Your task to perform on an android device: Search for a custom made wallet on Etsy Image 0: 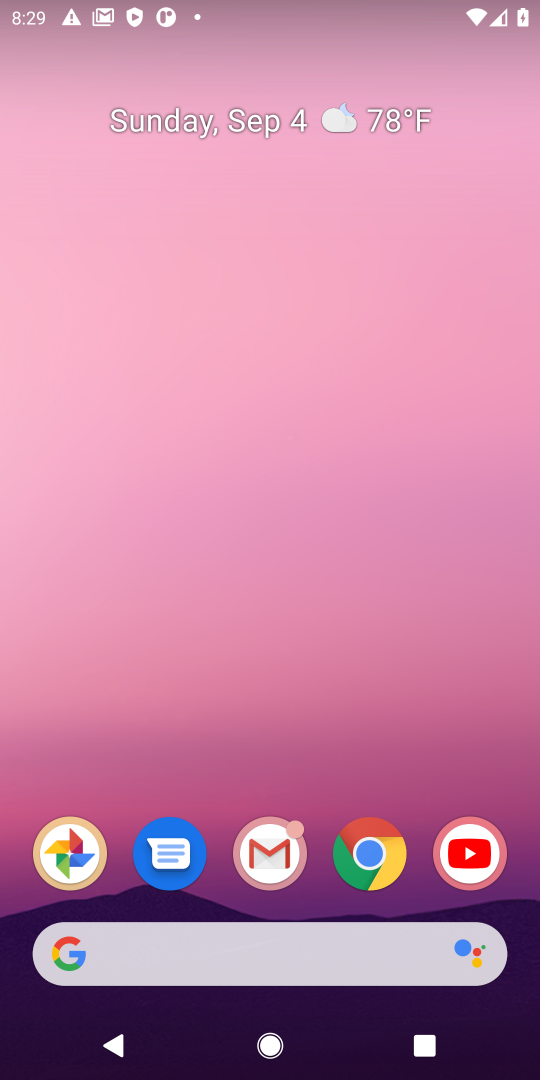
Step 0: press home button
Your task to perform on an android device: Search for a custom made wallet on Etsy Image 1: 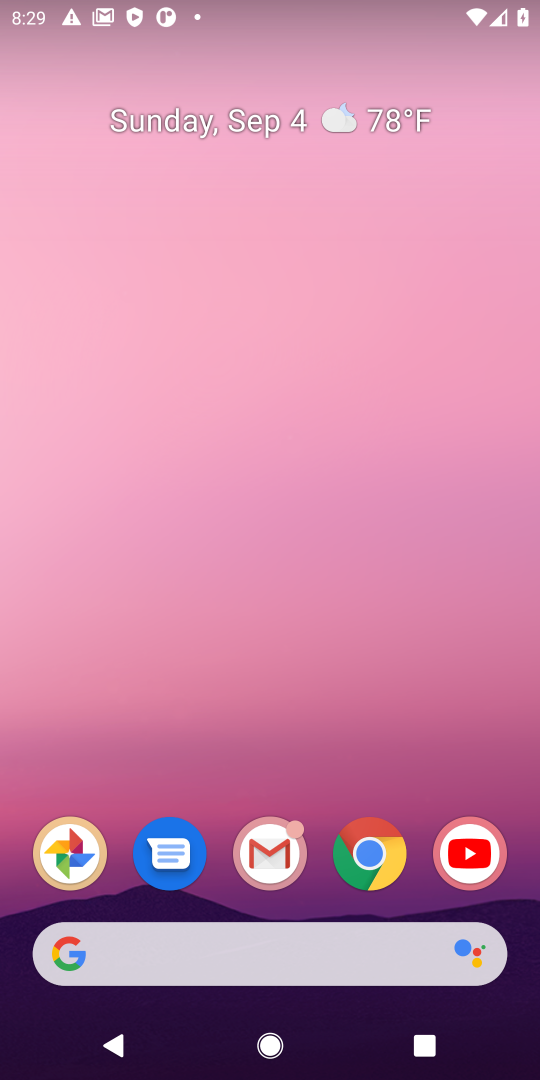
Step 1: drag from (316, 802) to (312, 0)
Your task to perform on an android device: Search for a custom made wallet on Etsy Image 2: 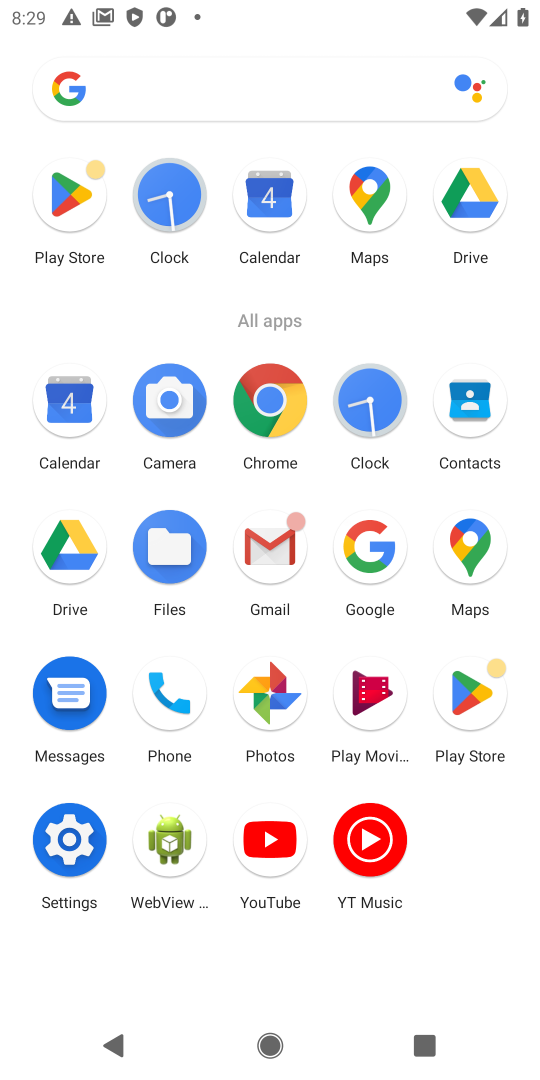
Step 2: click (260, 395)
Your task to perform on an android device: Search for a custom made wallet on Etsy Image 3: 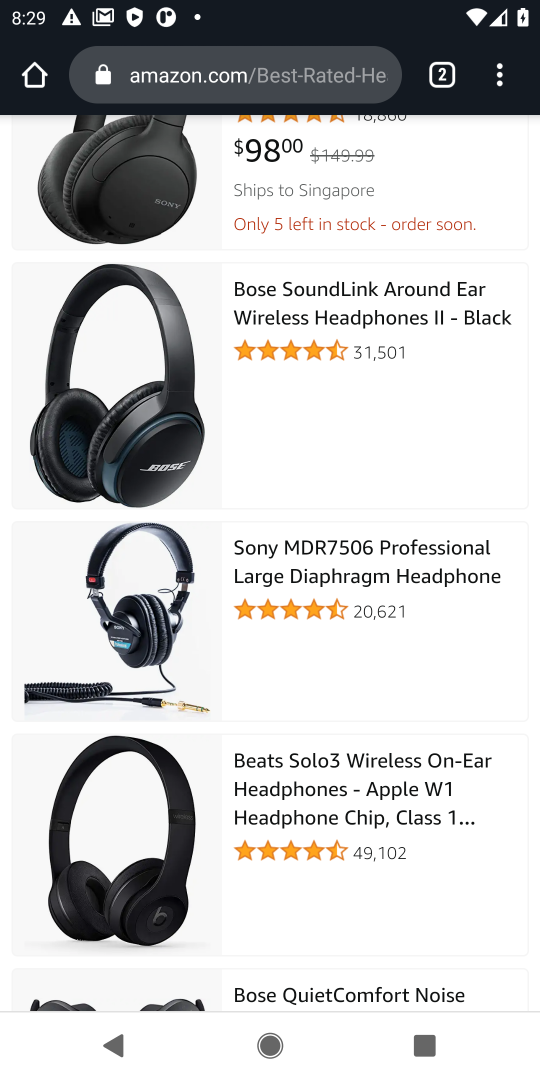
Step 3: click (234, 72)
Your task to perform on an android device: Search for a custom made wallet on Etsy Image 4: 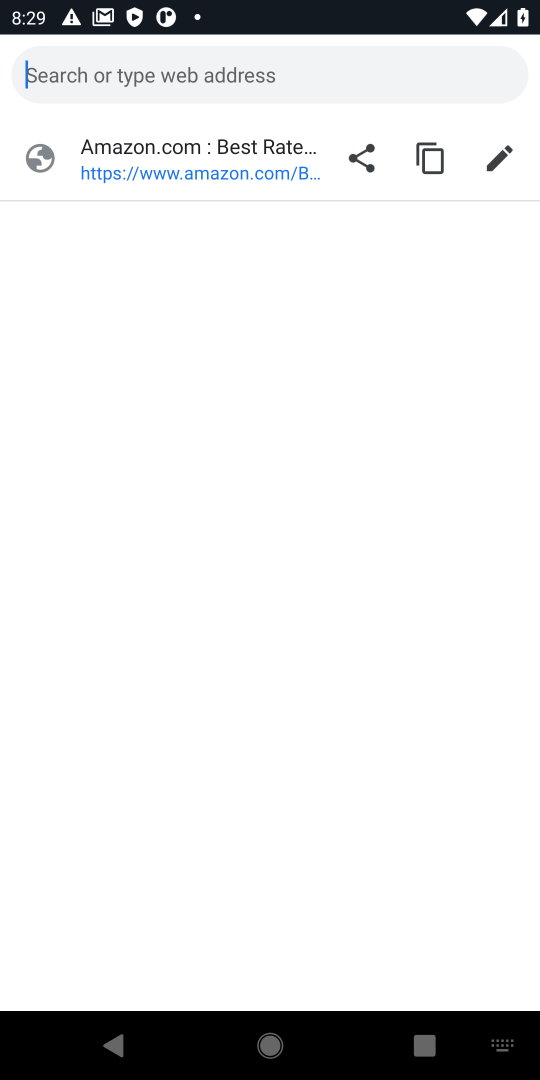
Step 4: type "custom made wallet on Etsy"
Your task to perform on an android device: Search for a custom made wallet on Etsy Image 5: 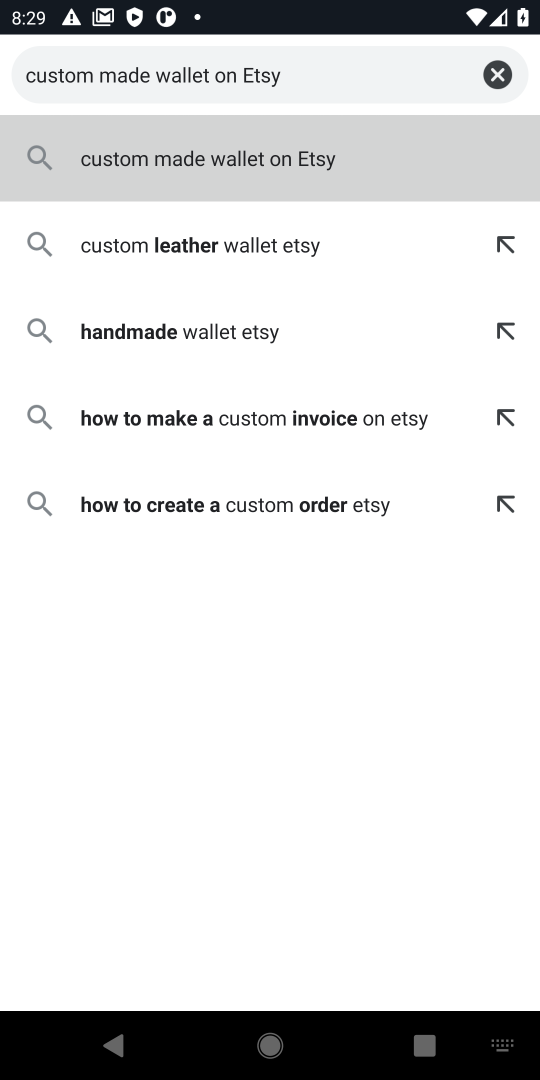
Step 5: type ""
Your task to perform on an android device: Search for a custom made wallet on Etsy Image 6: 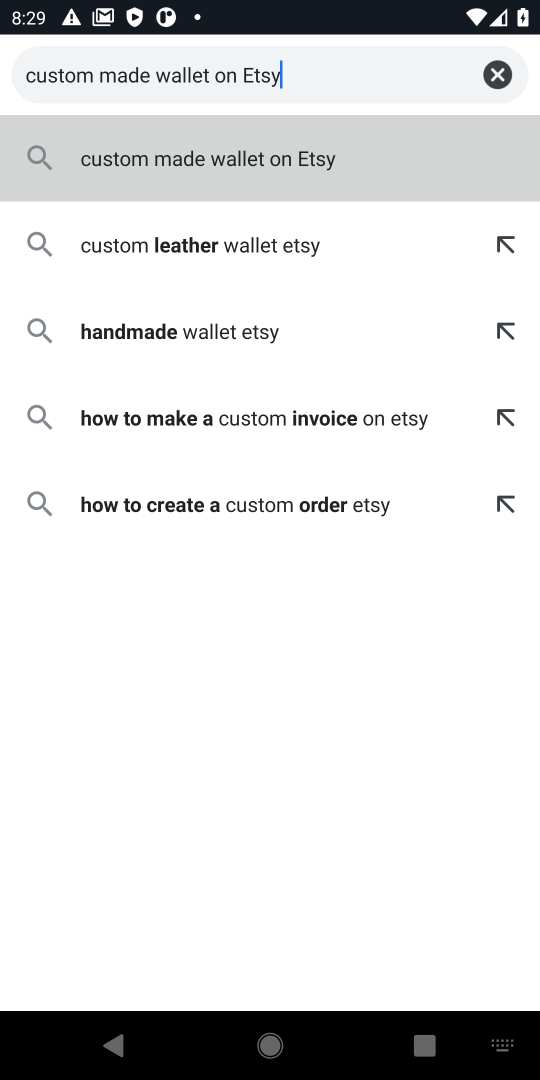
Step 6: click (235, 174)
Your task to perform on an android device: Search for a custom made wallet on Etsy Image 7: 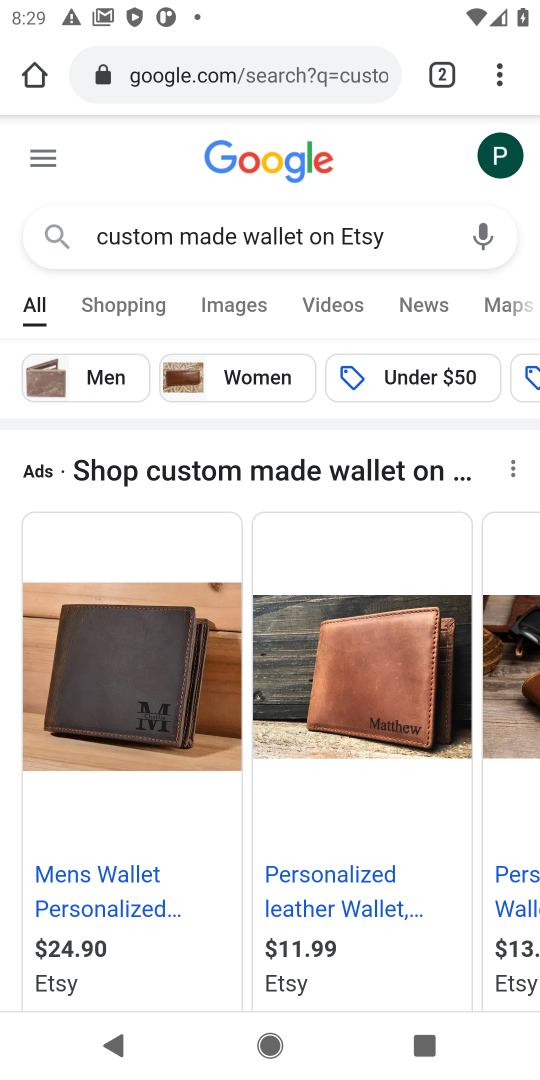
Step 7: drag from (244, 952) to (215, 375)
Your task to perform on an android device: Search for a custom made wallet on Etsy Image 8: 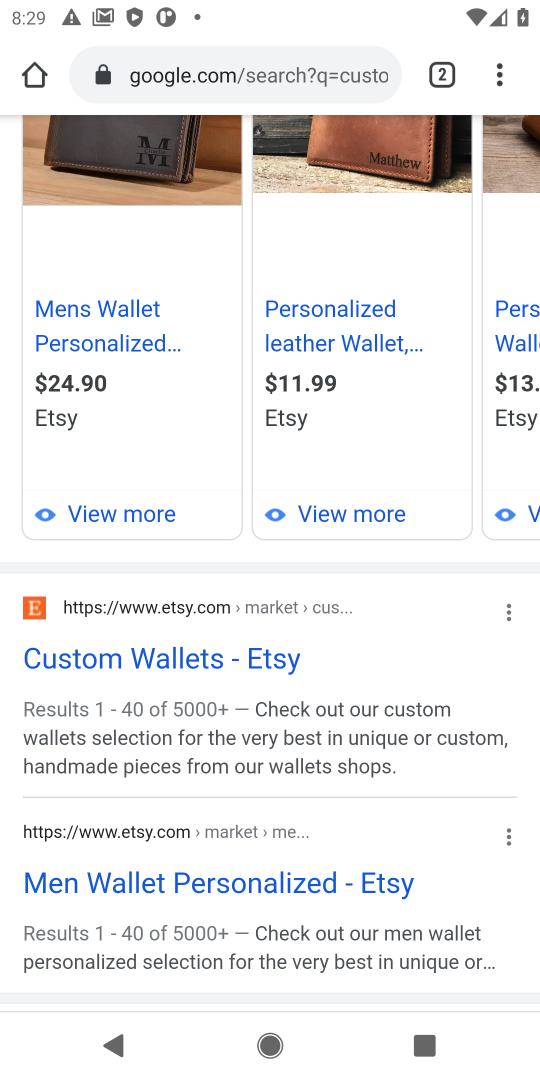
Step 8: click (171, 650)
Your task to perform on an android device: Search for a custom made wallet on Etsy Image 9: 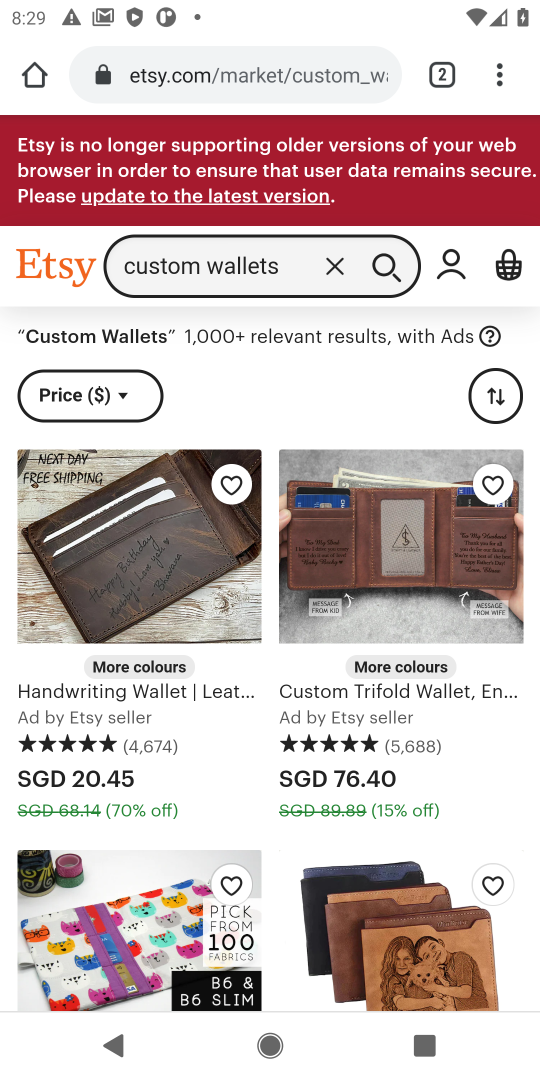
Step 9: task complete